Your task to perform on an android device: turn off sleep mode Image 0: 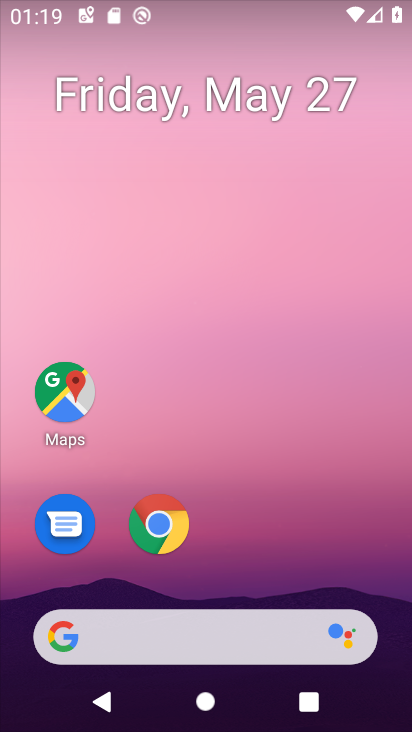
Step 0: drag from (250, 533) to (221, 129)
Your task to perform on an android device: turn off sleep mode Image 1: 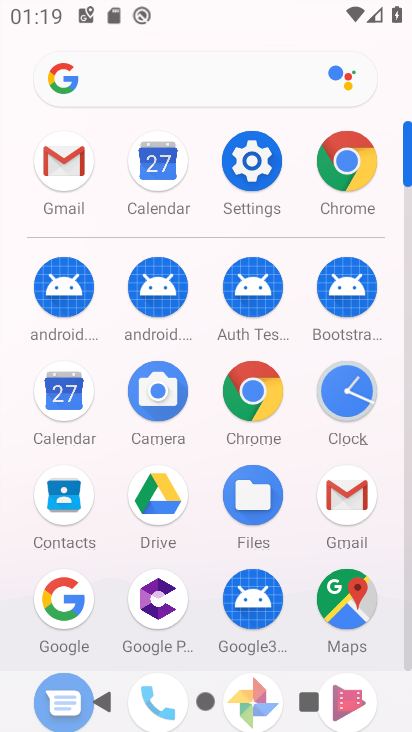
Step 1: click (252, 156)
Your task to perform on an android device: turn off sleep mode Image 2: 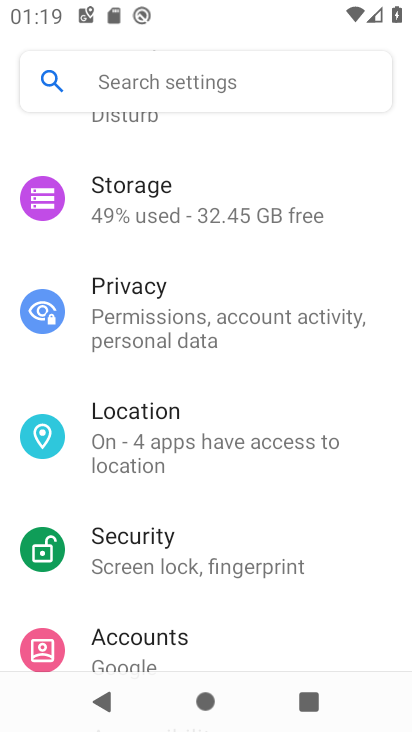
Step 2: drag from (236, 274) to (228, 626)
Your task to perform on an android device: turn off sleep mode Image 3: 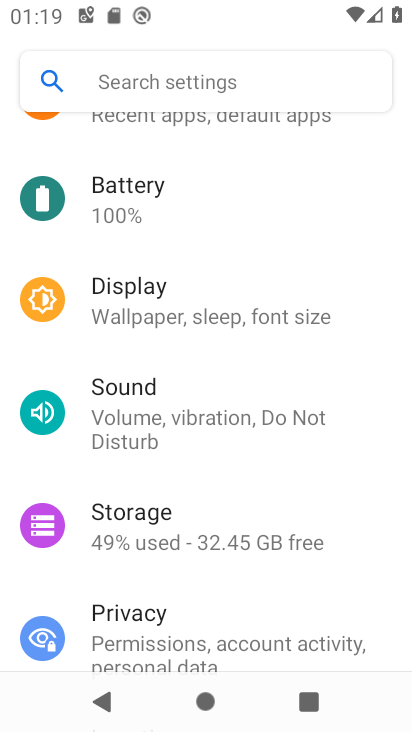
Step 3: click (221, 311)
Your task to perform on an android device: turn off sleep mode Image 4: 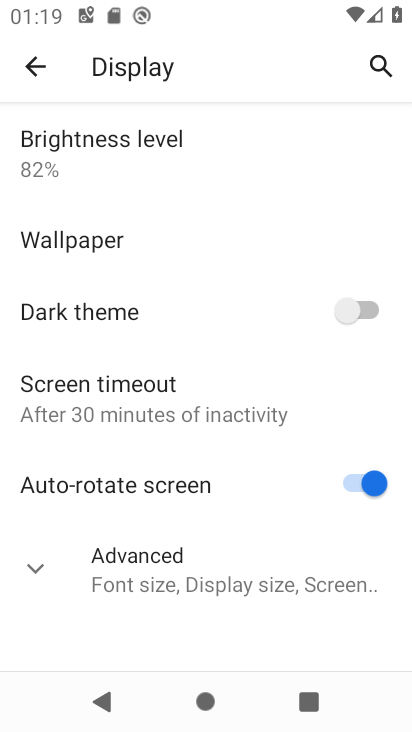
Step 4: click (33, 567)
Your task to perform on an android device: turn off sleep mode Image 5: 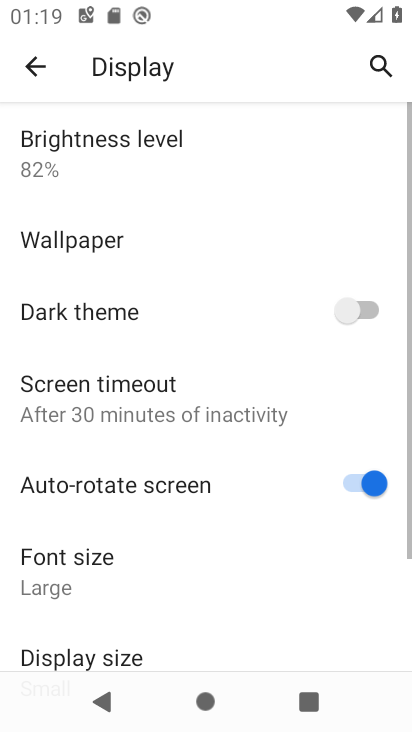
Step 5: task complete